Your task to perform on an android device: Open Google Chrome Image 0: 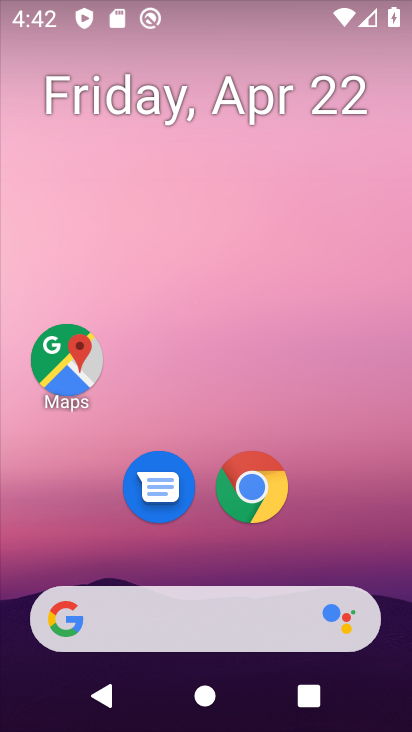
Step 0: click (253, 488)
Your task to perform on an android device: Open Google Chrome Image 1: 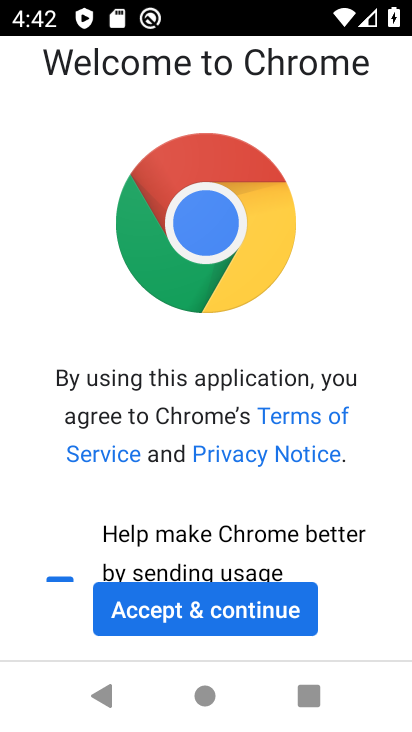
Step 1: click (206, 600)
Your task to perform on an android device: Open Google Chrome Image 2: 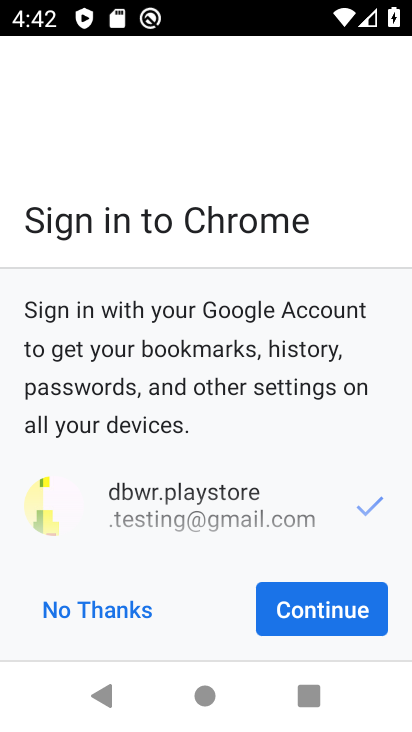
Step 2: click (301, 613)
Your task to perform on an android device: Open Google Chrome Image 3: 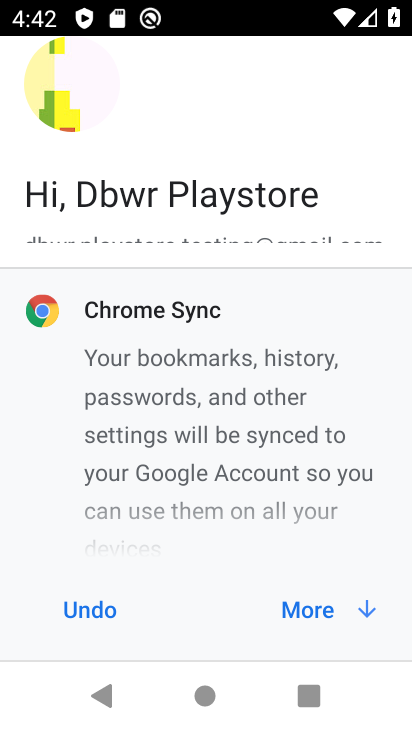
Step 3: click (303, 608)
Your task to perform on an android device: Open Google Chrome Image 4: 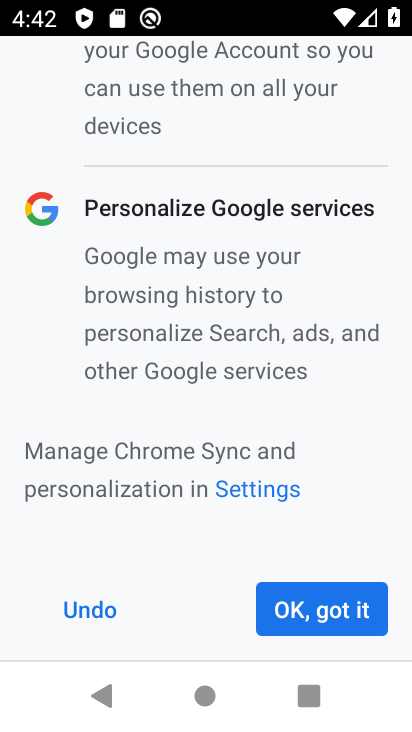
Step 4: click (301, 608)
Your task to perform on an android device: Open Google Chrome Image 5: 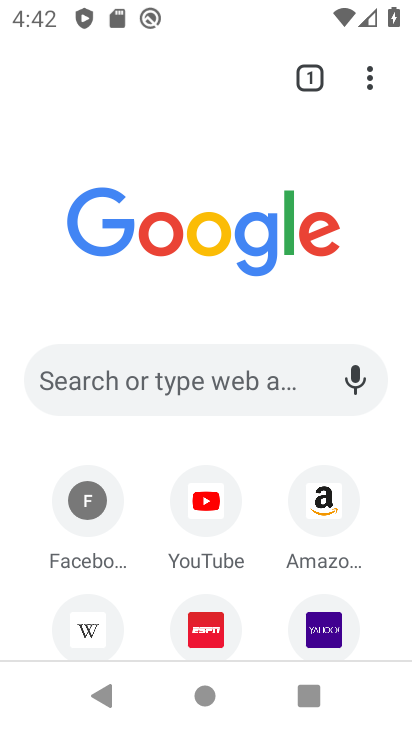
Step 5: task complete